Your task to perform on an android device: install app "Contacts" Image 0: 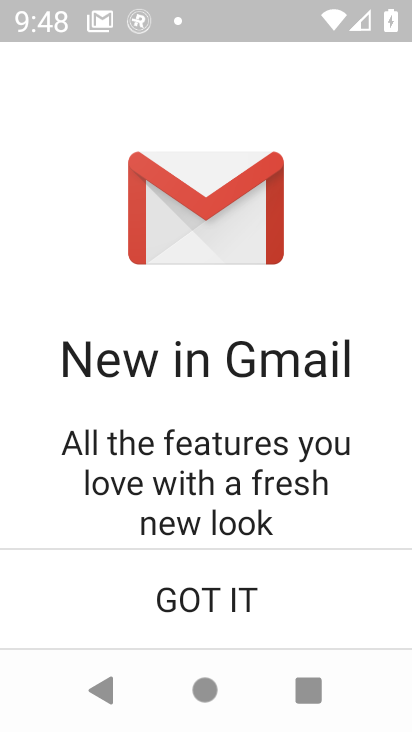
Step 0: press home button
Your task to perform on an android device: install app "Contacts" Image 1: 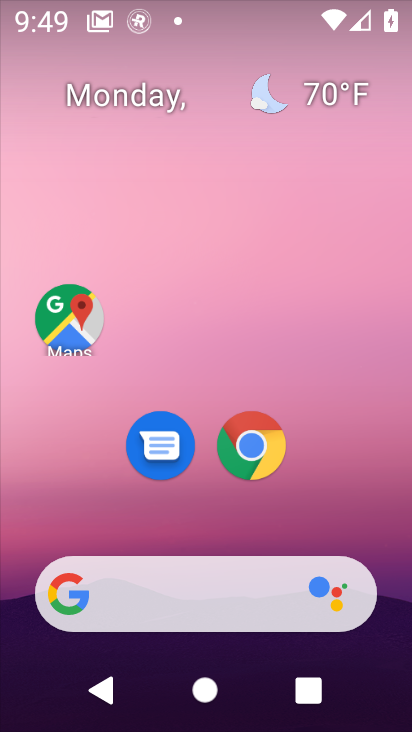
Step 1: drag from (199, 433) to (209, 187)
Your task to perform on an android device: install app "Contacts" Image 2: 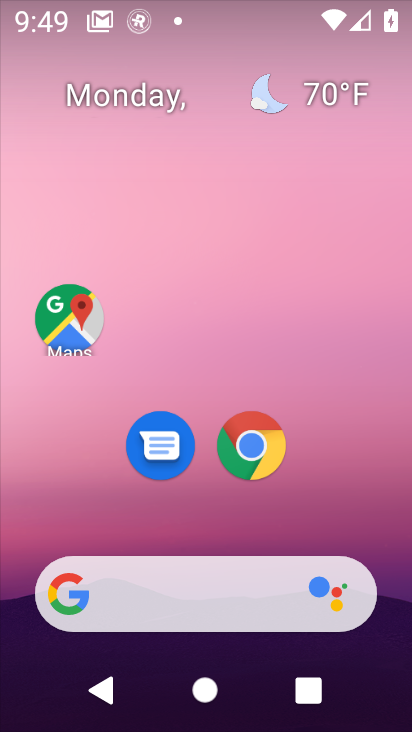
Step 2: click (198, 127)
Your task to perform on an android device: install app "Contacts" Image 3: 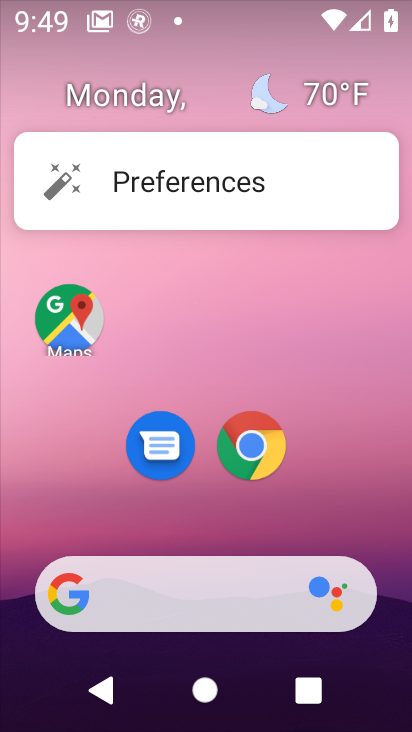
Step 3: click (346, 376)
Your task to perform on an android device: install app "Contacts" Image 4: 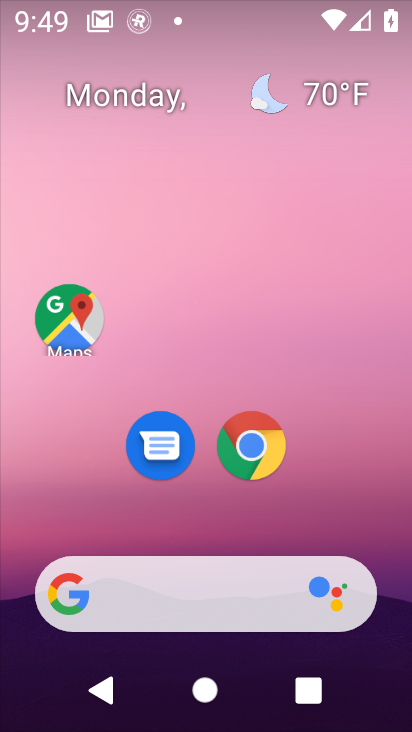
Step 4: task complete